Your task to perform on an android device: set an alarm Image 0: 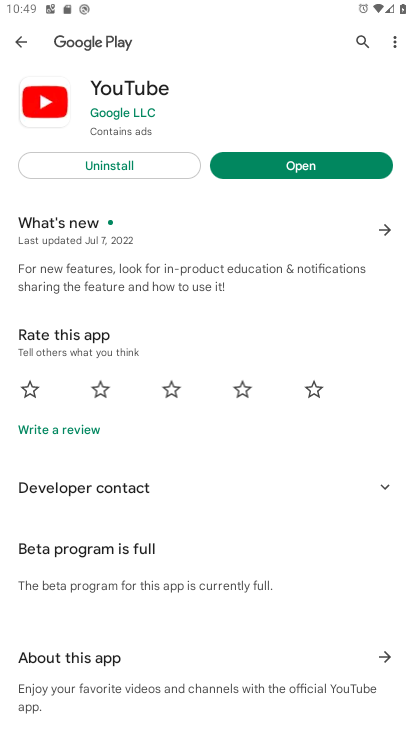
Step 0: press home button
Your task to perform on an android device: set an alarm Image 1: 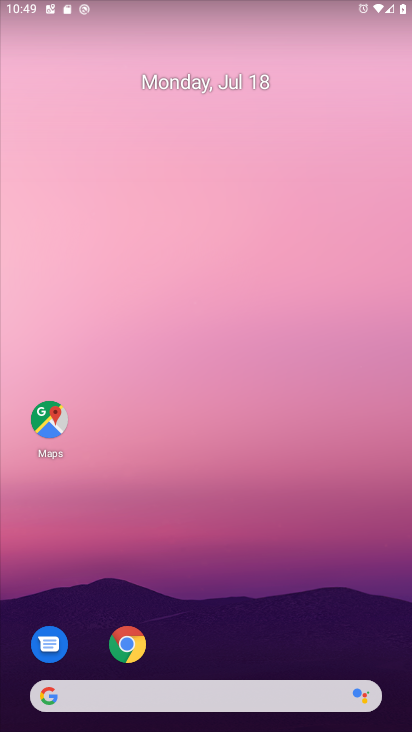
Step 1: drag from (229, 670) to (228, 321)
Your task to perform on an android device: set an alarm Image 2: 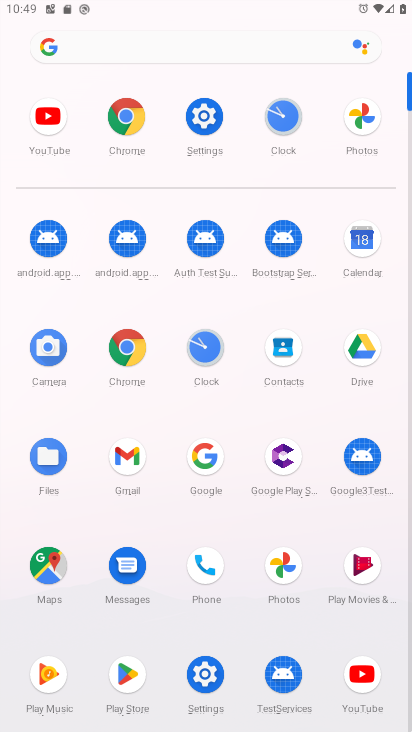
Step 2: click (297, 138)
Your task to perform on an android device: set an alarm Image 3: 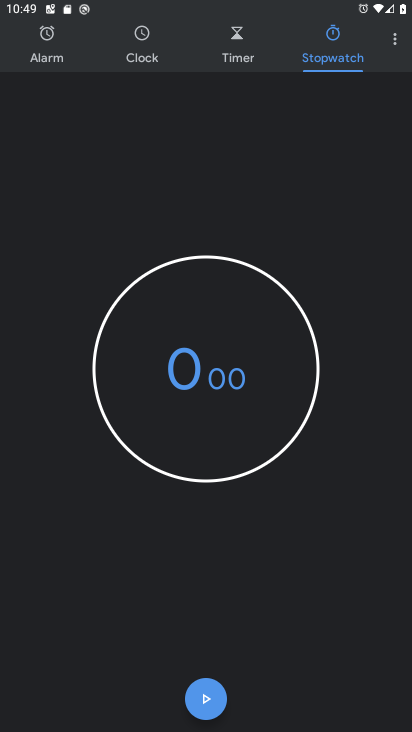
Step 3: task complete